Your task to perform on an android device: Is it going to rain tomorrow? Image 0: 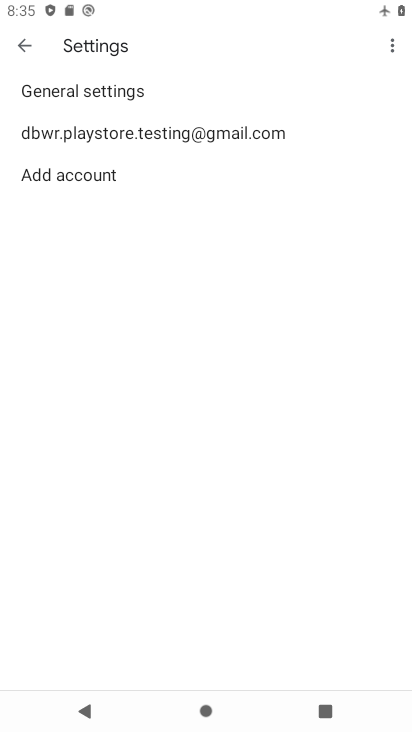
Step 0: press home button
Your task to perform on an android device: Is it going to rain tomorrow? Image 1: 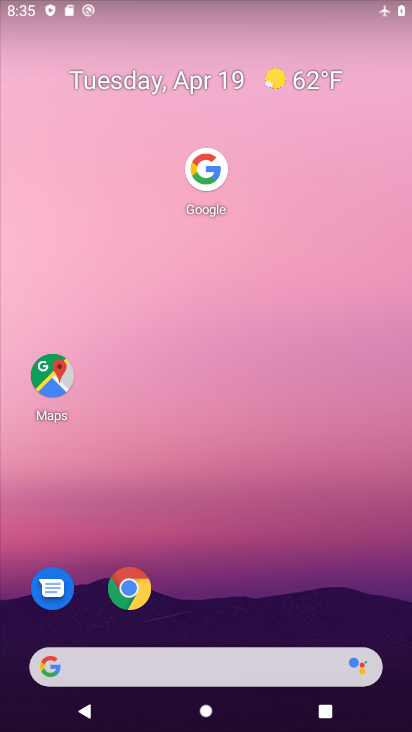
Step 1: click (276, 81)
Your task to perform on an android device: Is it going to rain tomorrow? Image 2: 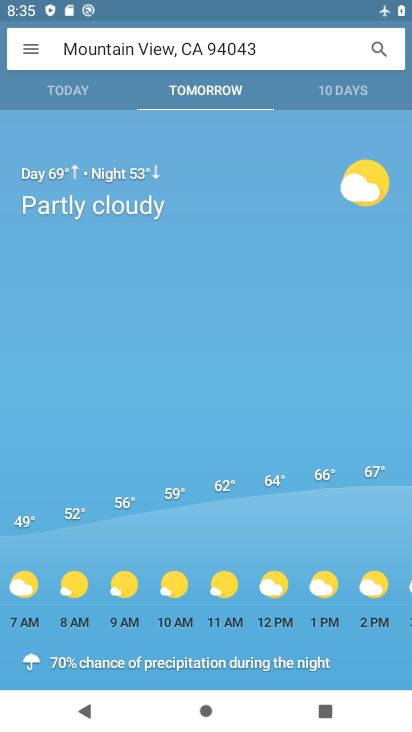
Step 2: task complete